Your task to perform on an android device: Open Maps and search for coffee Image 0: 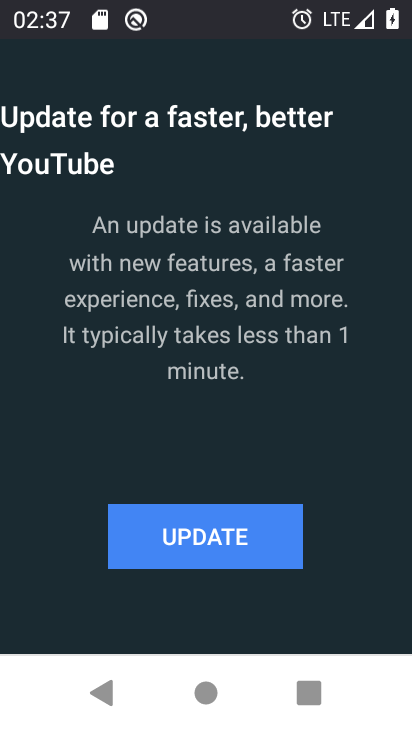
Step 0: press back button
Your task to perform on an android device: Open Maps and search for coffee Image 1: 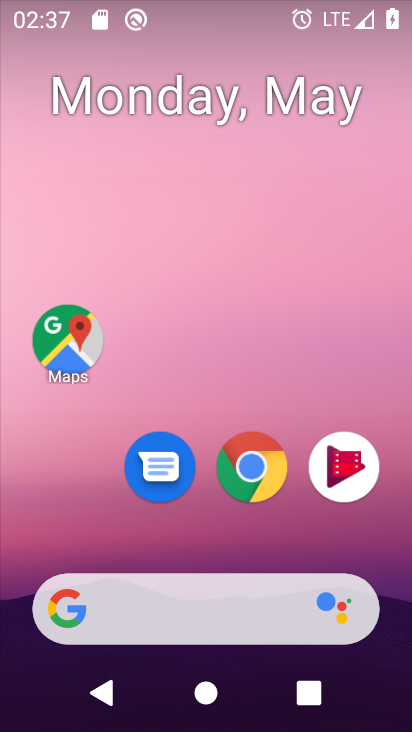
Step 1: drag from (220, 514) to (251, 97)
Your task to perform on an android device: Open Maps and search for coffee Image 2: 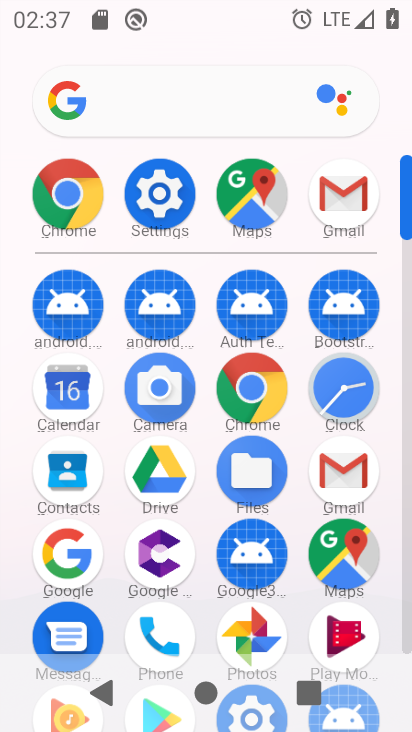
Step 2: click (337, 543)
Your task to perform on an android device: Open Maps and search for coffee Image 3: 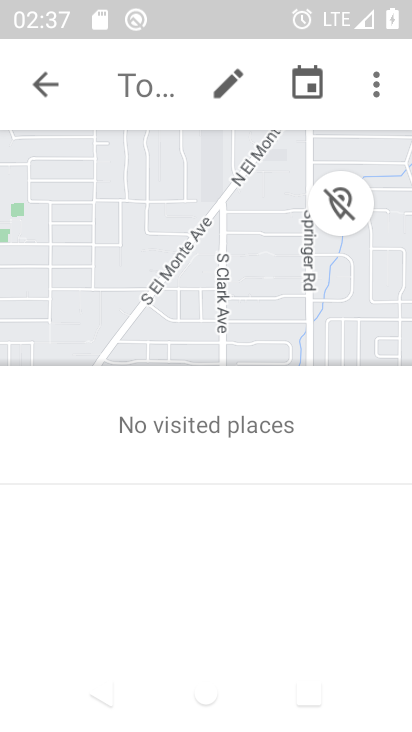
Step 3: click (45, 73)
Your task to perform on an android device: Open Maps and search for coffee Image 4: 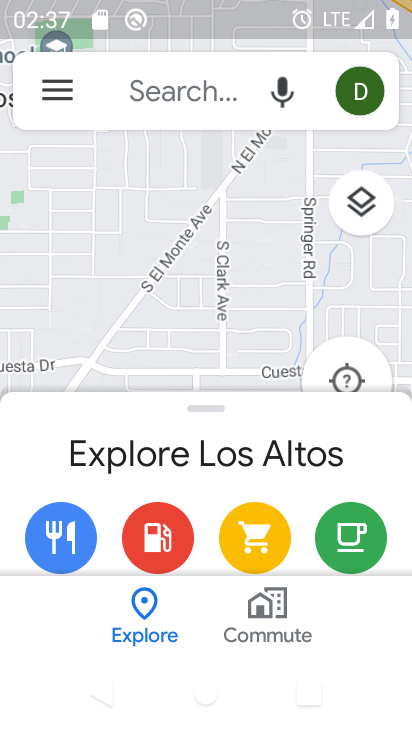
Step 4: click (203, 78)
Your task to perform on an android device: Open Maps and search for coffee Image 5: 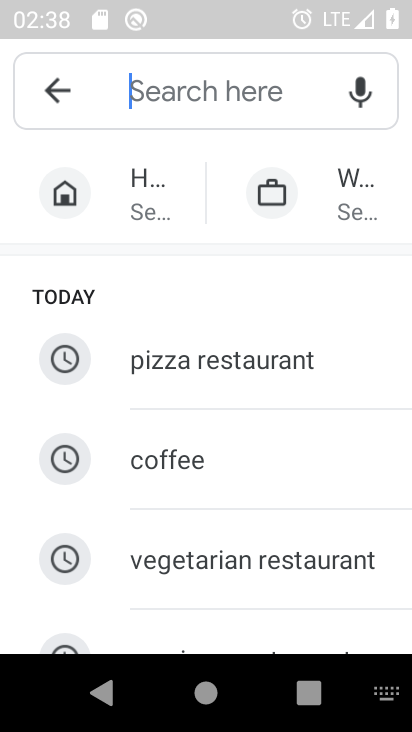
Step 5: click (211, 455)
Your task to perform on an android device: Open Maps and search for coffee Image 6: 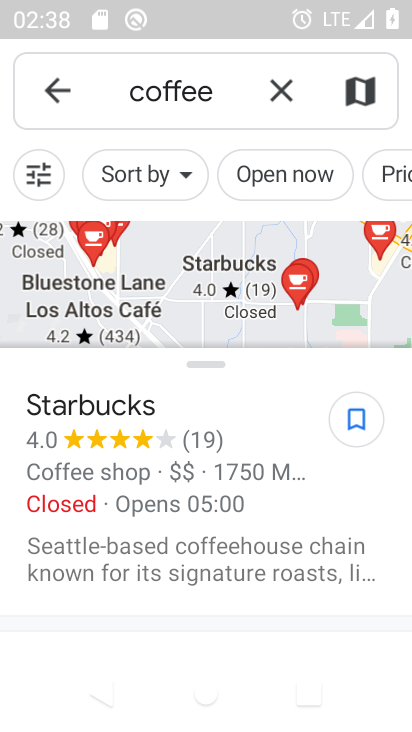
Step 6: task complete